Your task to perform on an android device: What is the recent news? Image 0: 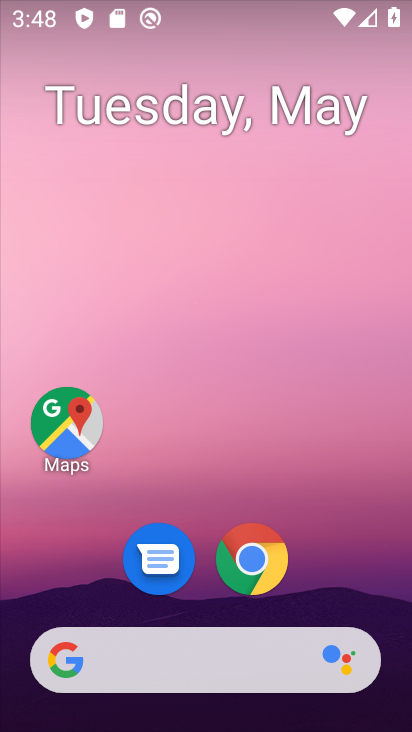
Step 0: click (227, 676)
Your task to perform on an android device: What is the recent news? Image 1: 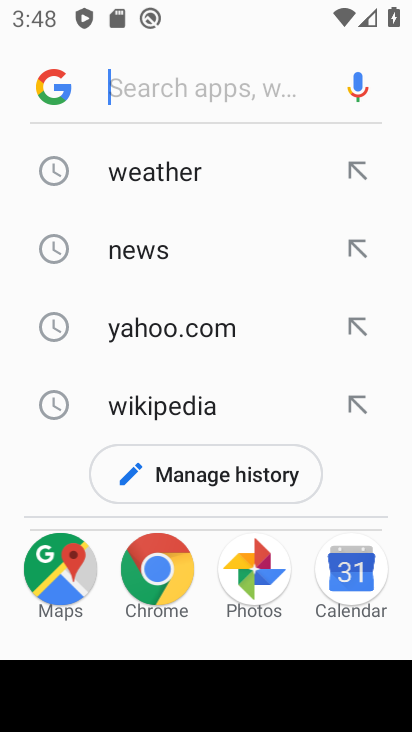
Step 1: click (212, 78)
Your task to perform on an android device: What is the recent news? Image 2: 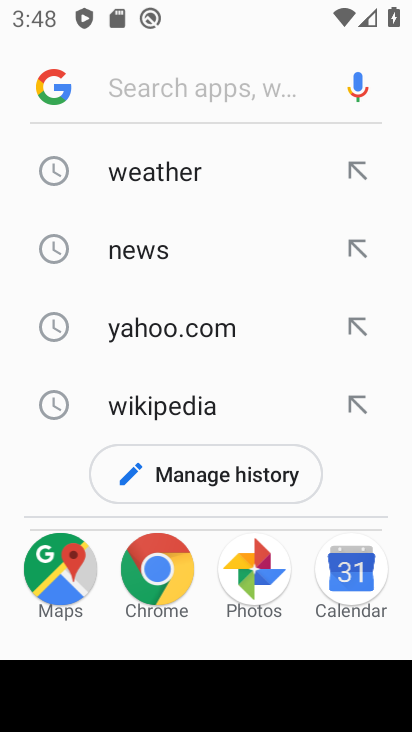
Step 2: type "recent news"
Your task to perform on an android device: What is the recent news? Image 3: 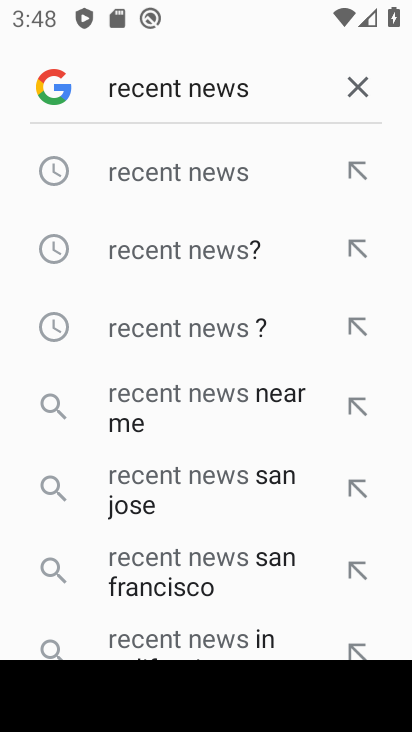
Step 3: click (237, 181)
Your task to perform on an android device: What is the recent news? Image 4: 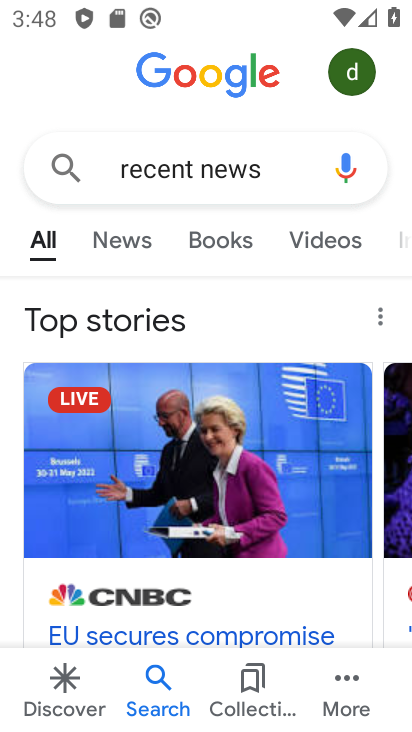
Step 4: task complete